Your task to perform on an android device: open app "Microsoft Excel" (install if not already installed), go to login, and select forgot password Image 0: 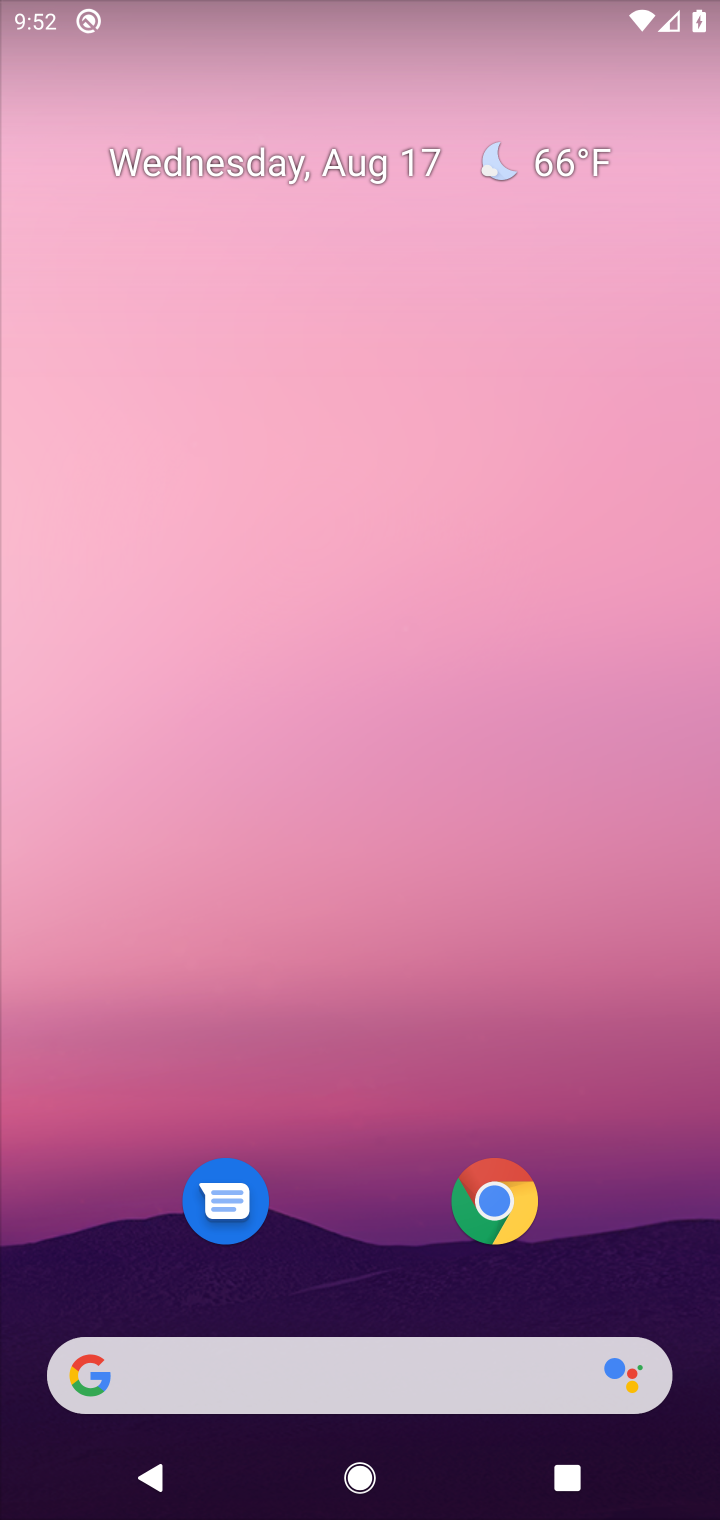
Step 0: press home button
Your task to perform on an android device: open app "Microsoft Excel" (install if not already installed), go to login, and select forgot password Image 1: 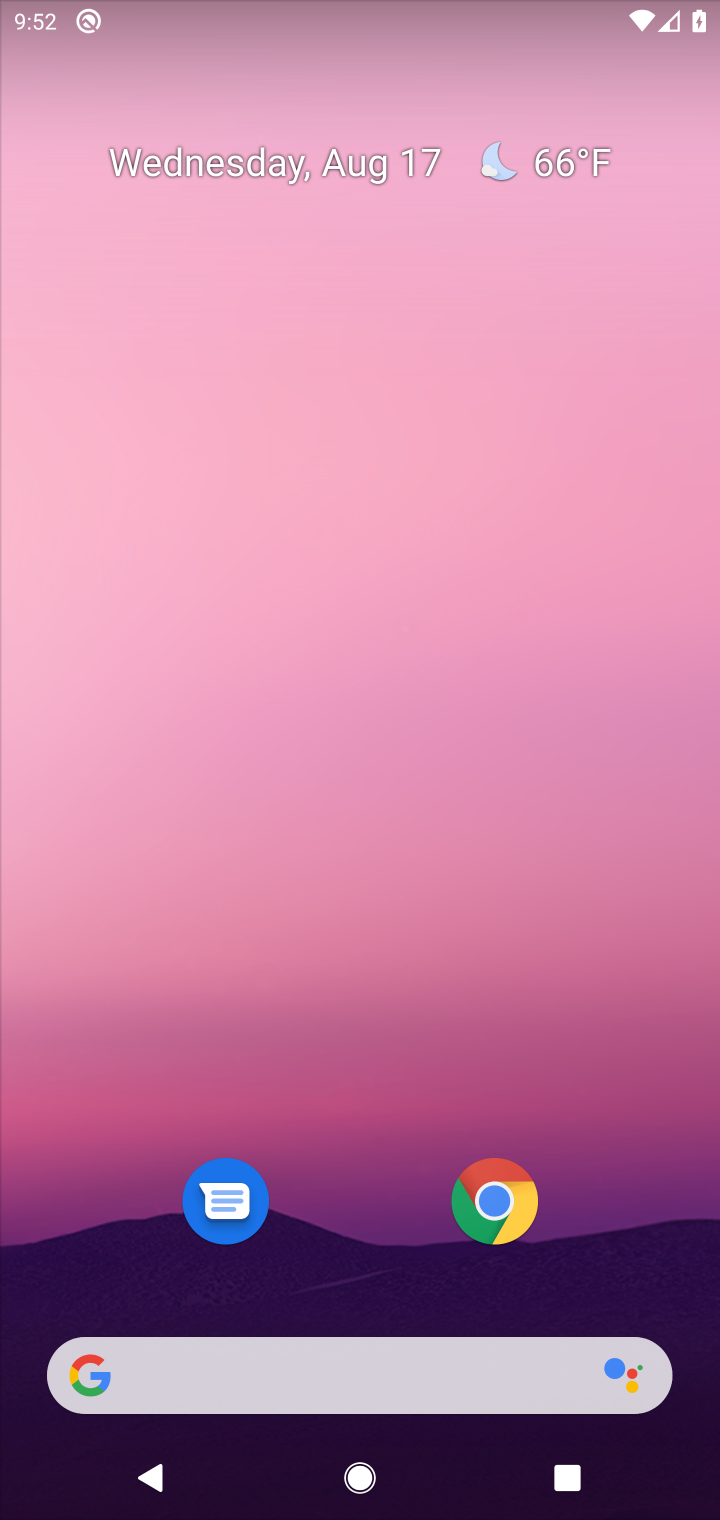
Step 1: drag from (352, 1298) to (253, 22)
Your task to perform on an android device: open app "Microsoft Excel" (install if not already installed), go to login, and select forgot password Image 2: 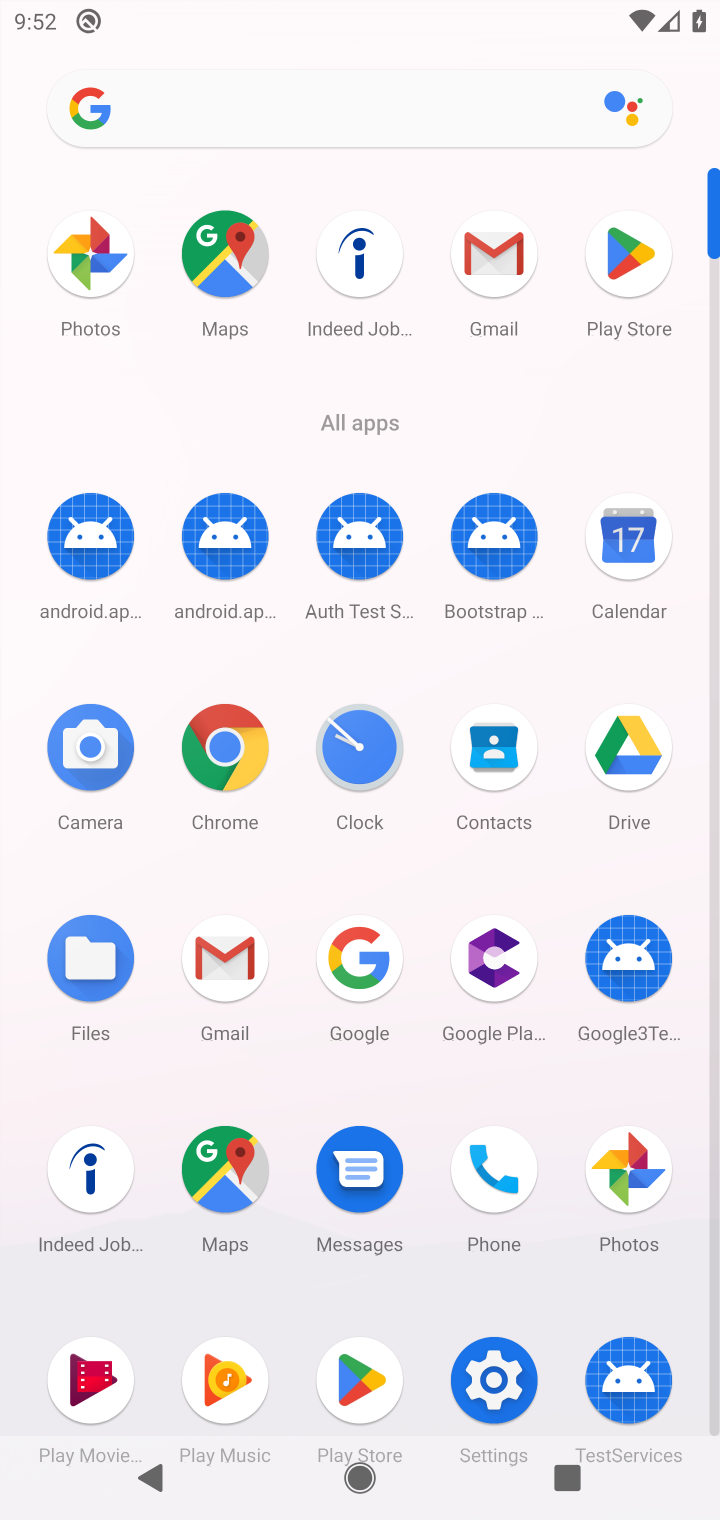
Step 2: click (613, 240)
Your task to perform on an android device: open app "Microsoft Excel" (install if not already installed), go to login, and select forgot password Image 3: 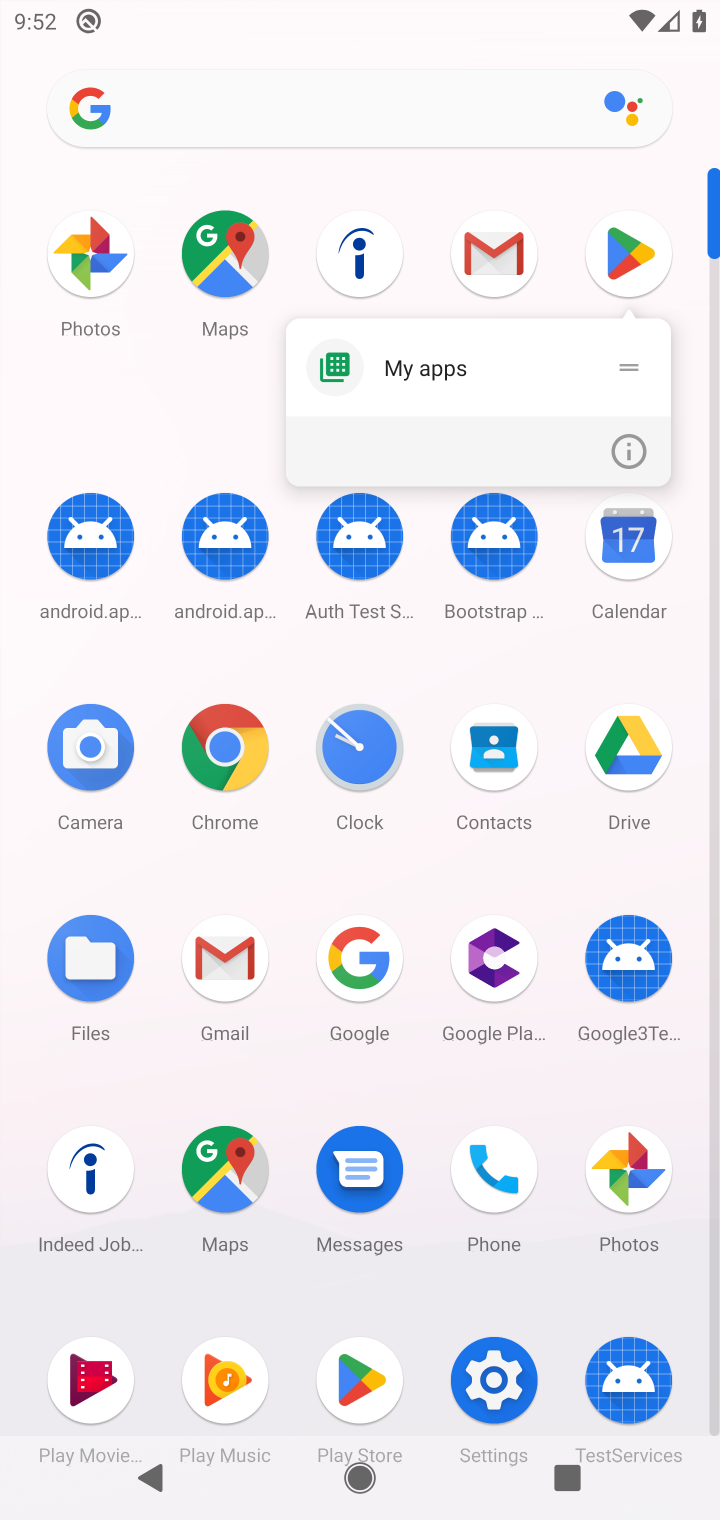
Step 3: click (621, 240)
Your task to perform on an android device: open app "Microsoft Excel" (install if not already installed), go to login, and select forgot password Image 4: 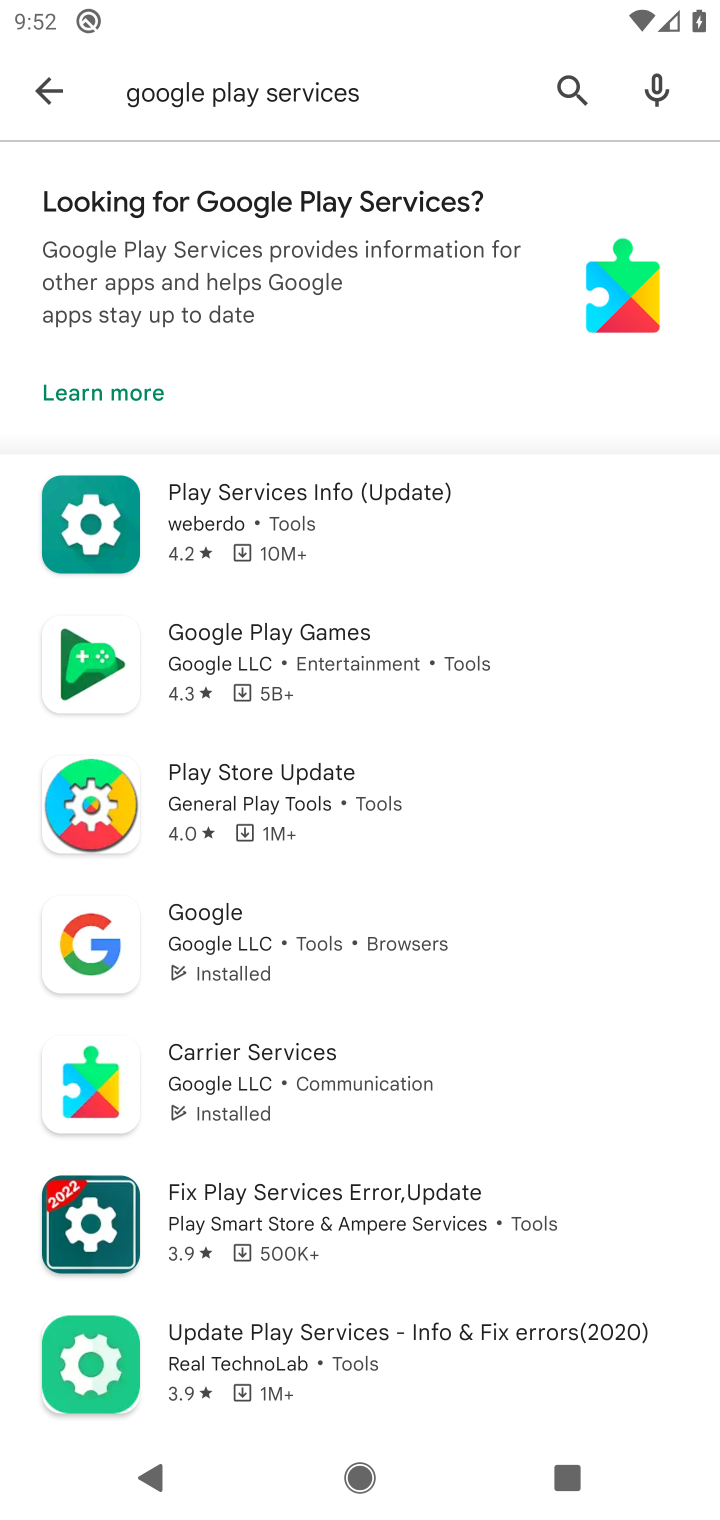
Step 4: click (572, 84)
Your task to perform on an android device: open app "Microsoft Excel" (install if not already installed), go to login, and select forgot password Image 5: 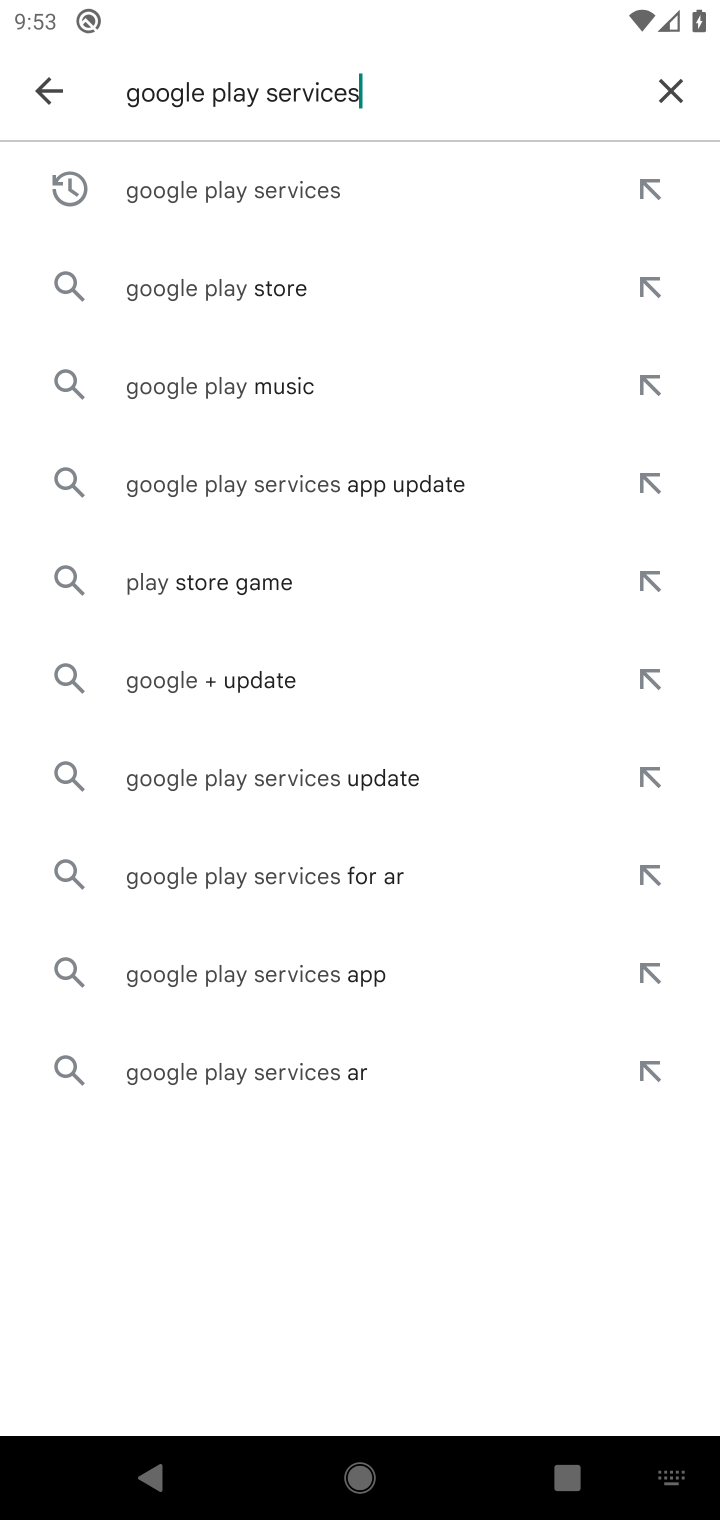
Step 5: click (679, 92)
Your task to perform on an android device: open app "Microsoft Excel" (install if not already installed), go to login, and select forgot password Image 6: 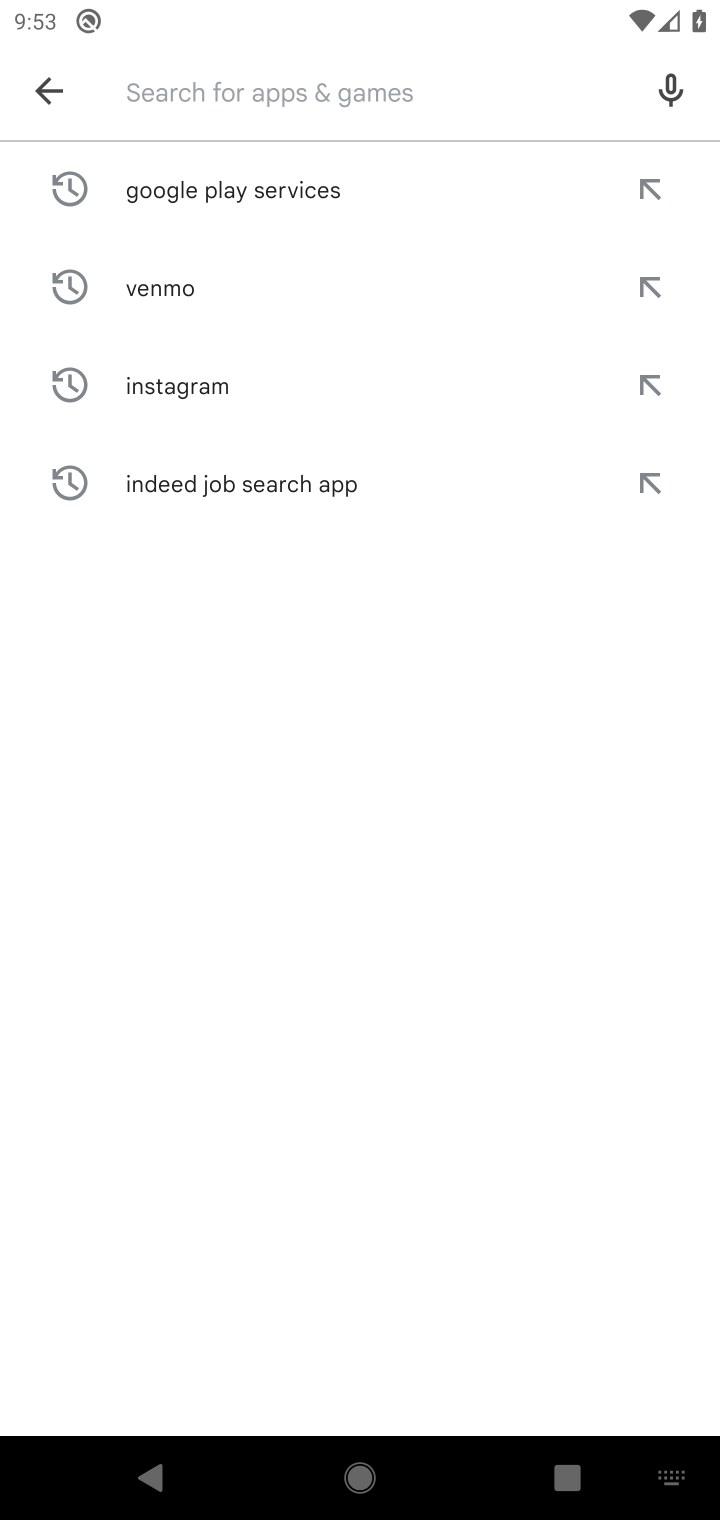
Step 6: type "Microsoft Excel"
Your task to perform on an android device: open app "Microsoft Excel" (install if not already installed), go to login, and select forgot password Image 7: 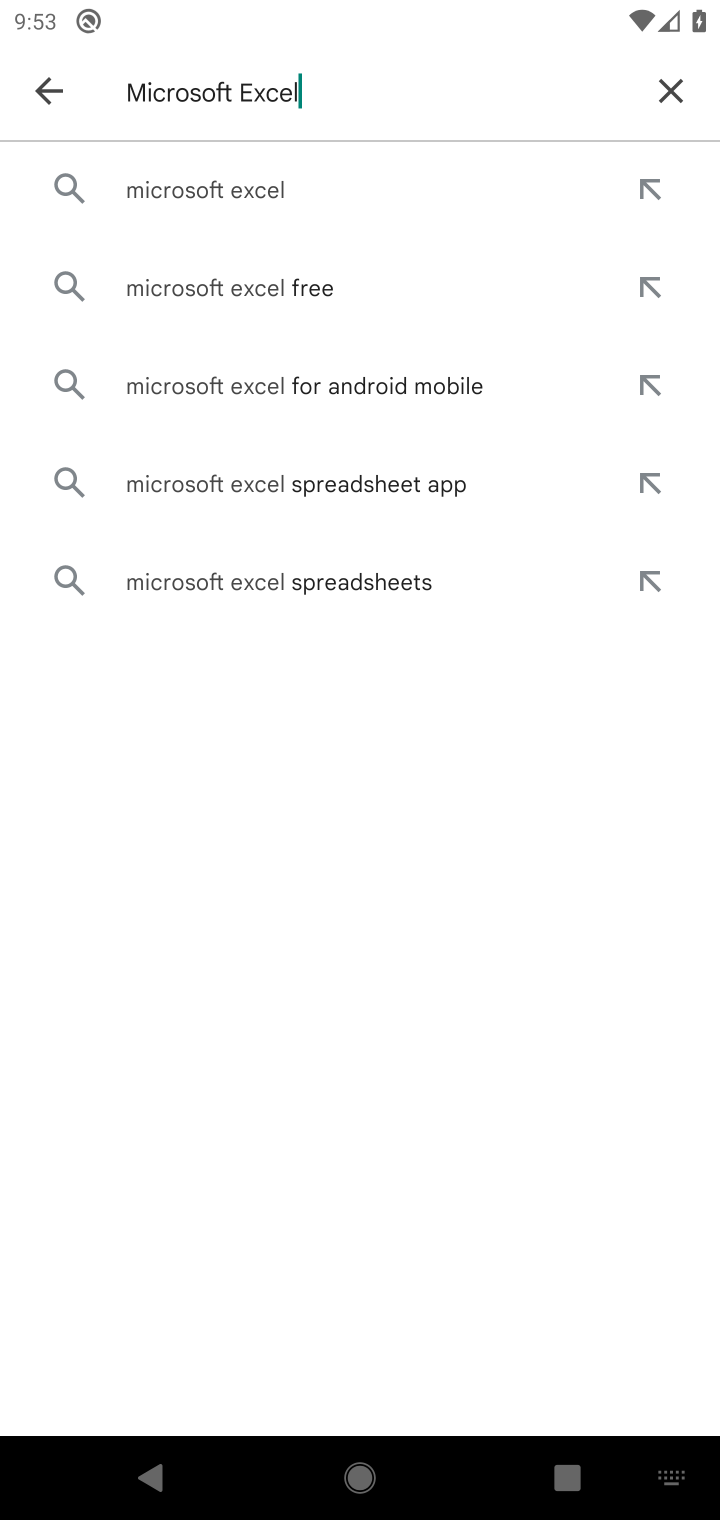
Step 7: click (319, 184)
Your task to perform on an android device: open app "Microsoft Excel" (install if not already installed), go to login, and select forgot password Image 8: 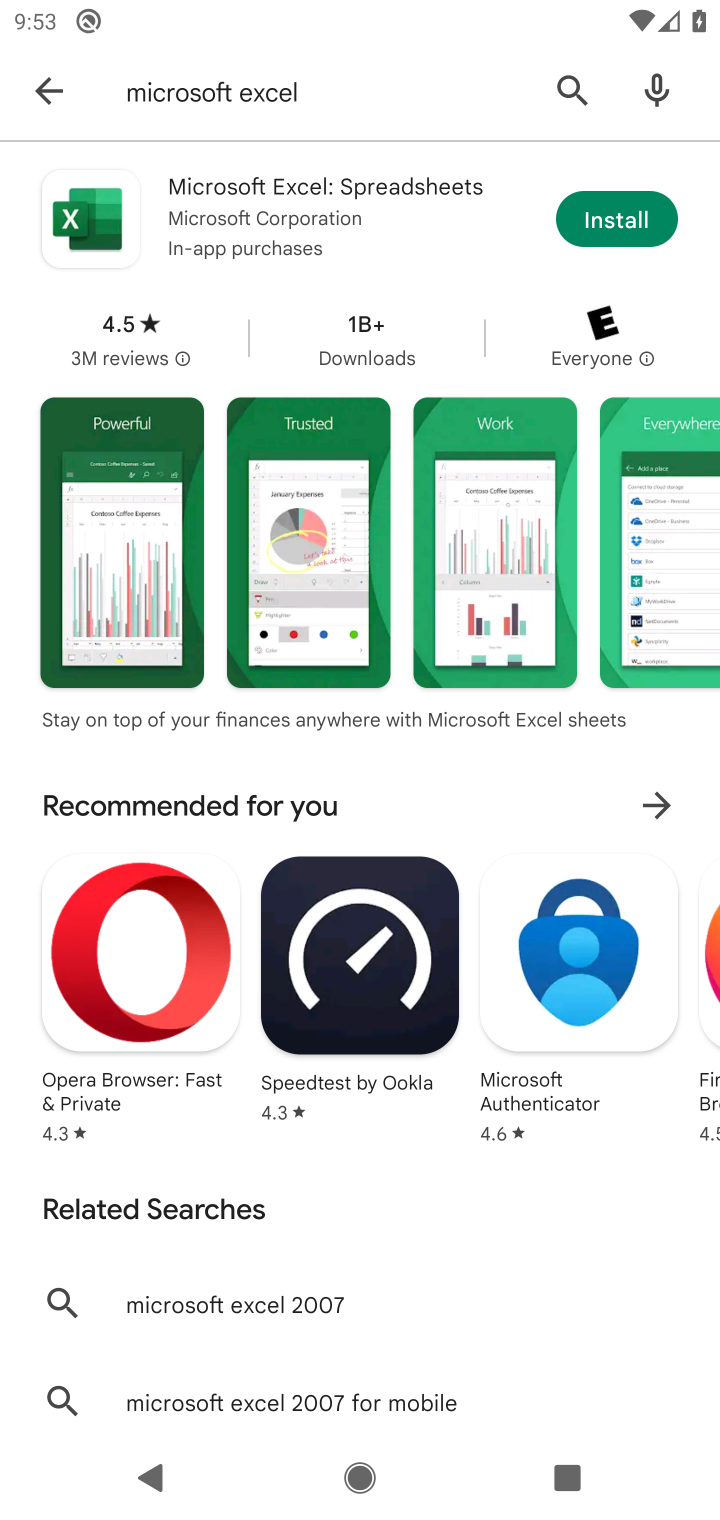
Step 8: click (613, 205)
Your task to perform on an android device: open app "Microsoft Excel" (install if not already installed), go to login, and select forgot password Image 9: 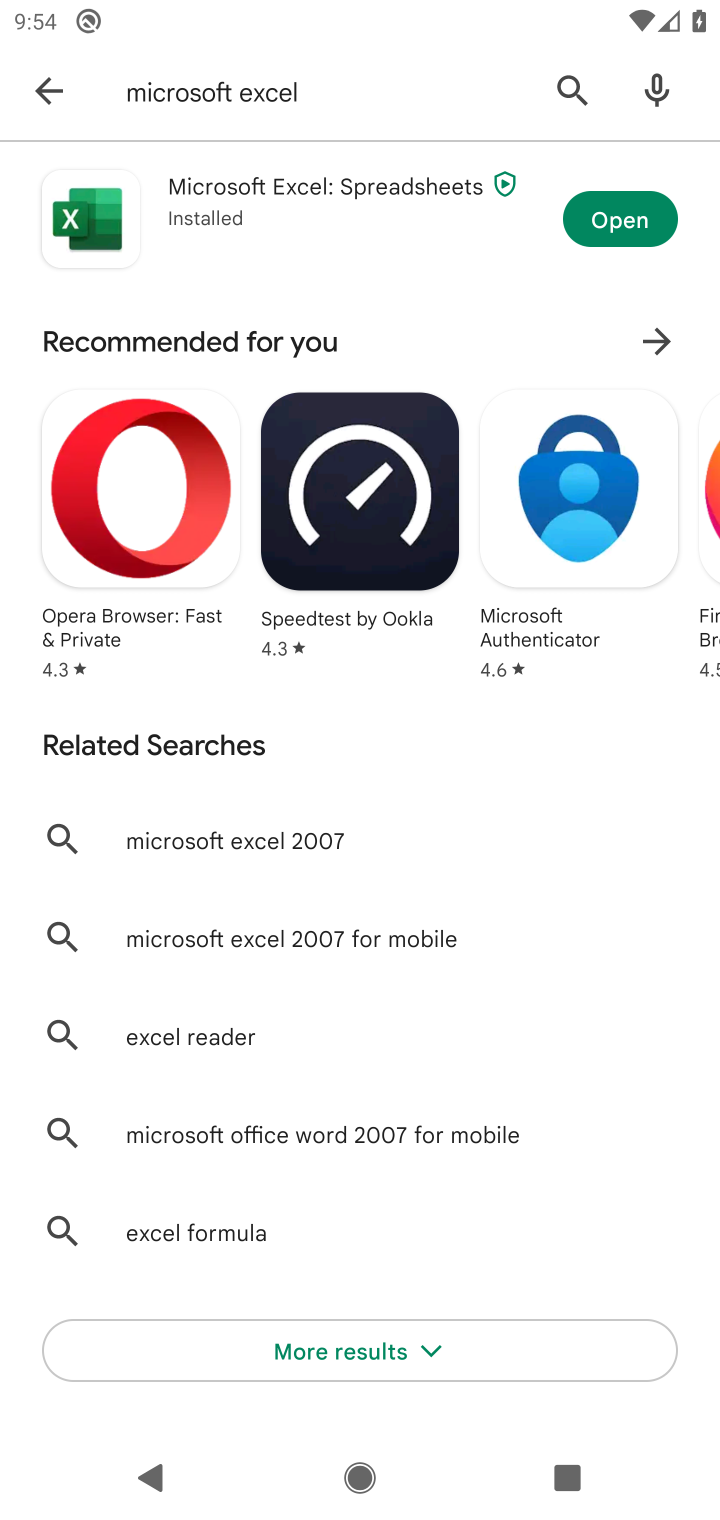
Step 9: click (626, 222)
Your task to perform on an android device: open app "Microsoft Excel" (install if not already installed), go to login, and select forgot password Image 10: 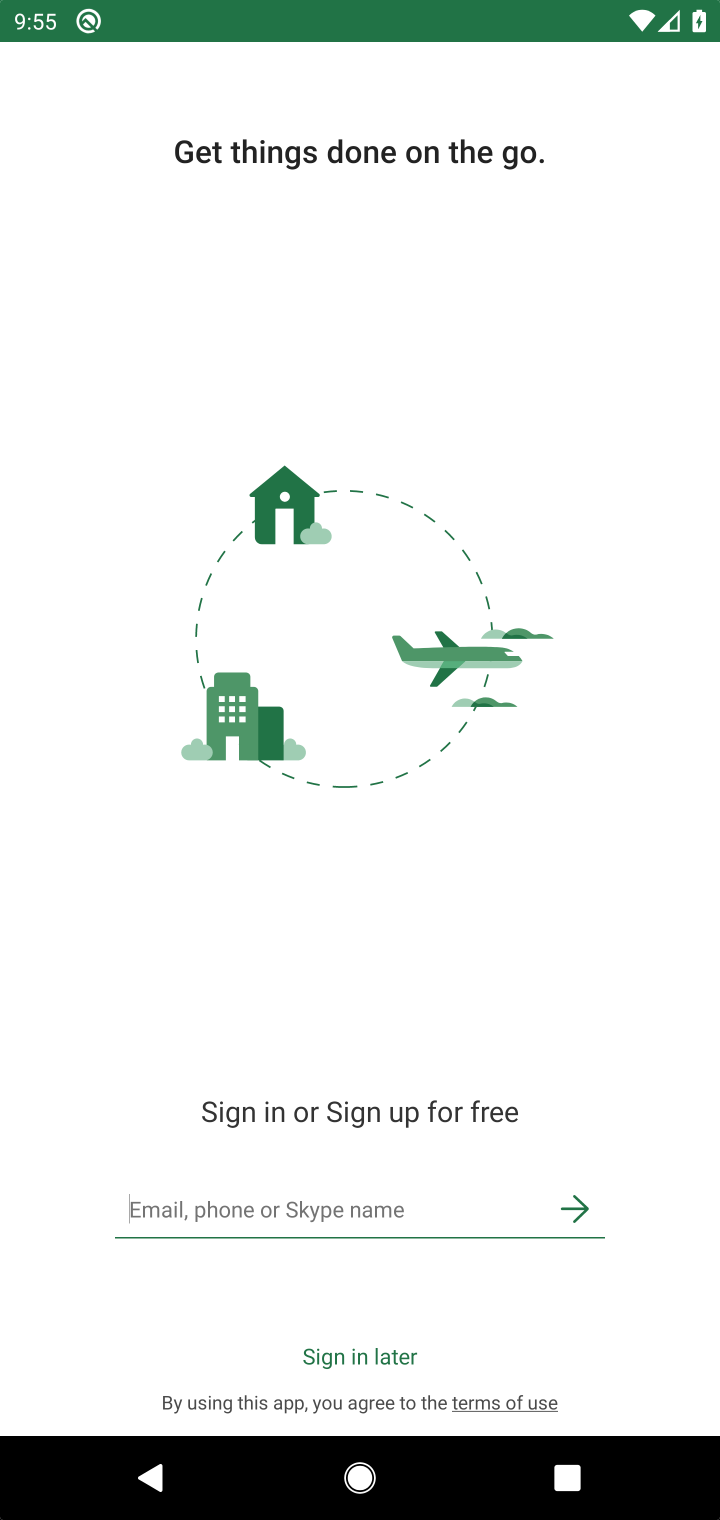
Step 10: click (342, 1349)
Your task to perform on an android device: open app "Microsoft Excel" (install if not already installed), go to login, and select forgot password Image 11: 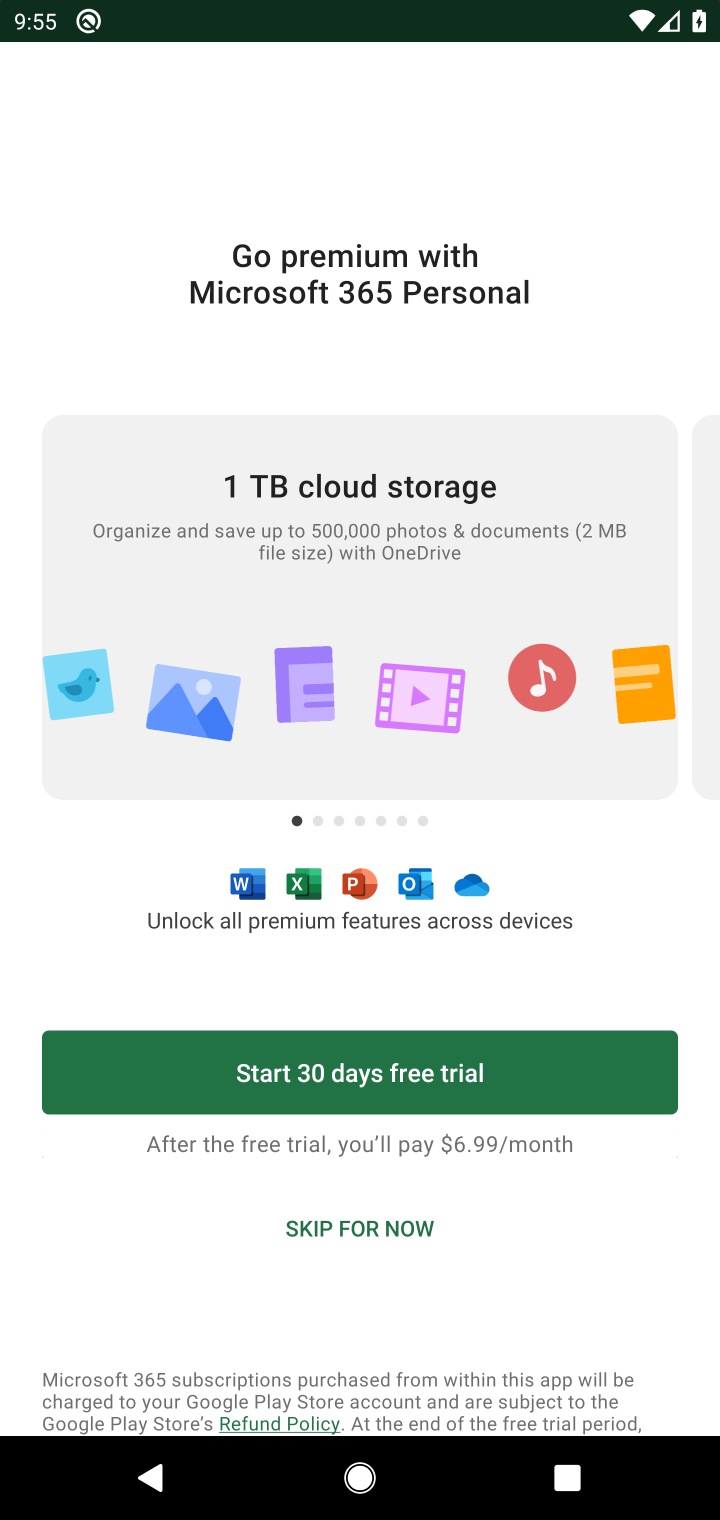
Step 11: click (342, 1229)
Your task to perform on an android device: open app "Microsoft Excel" (install if not already installed), go to login, and select forgot password Image 12: 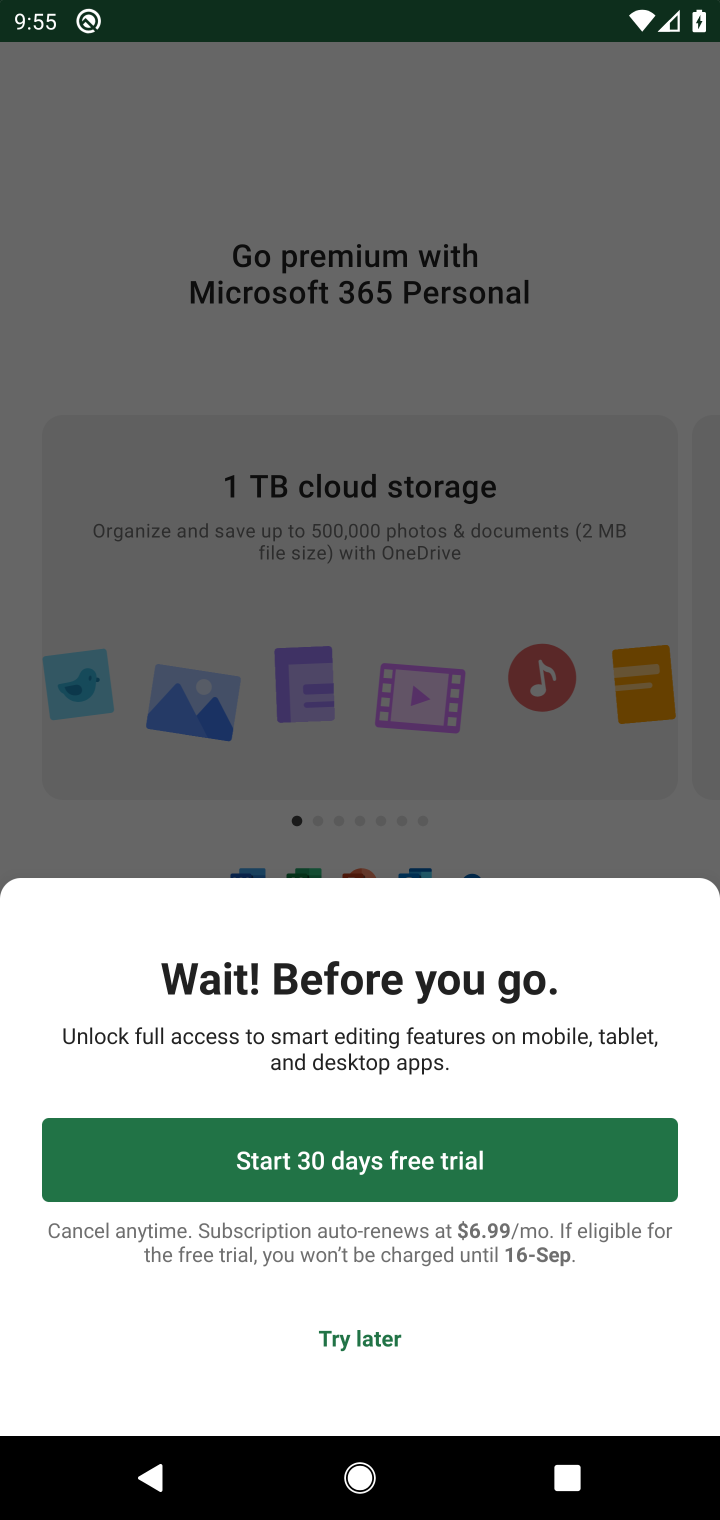
Step 12: task complete